Your task to perform on an android device: change the clock style Image 0: 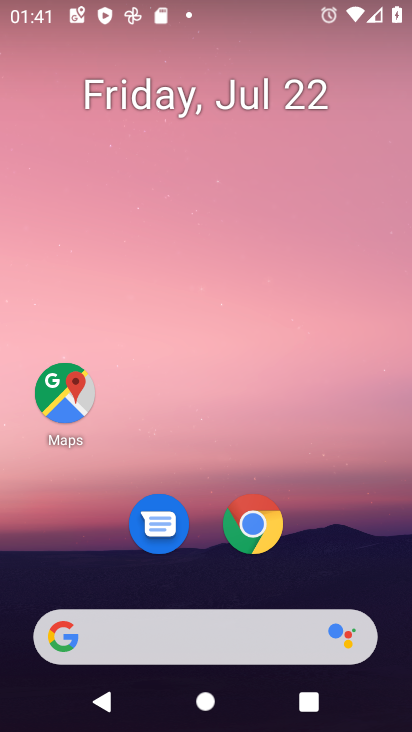
Step 0: drag from (208, 580) to (291, 87)
Your task to perform on an android device: change the clock style Image 1: 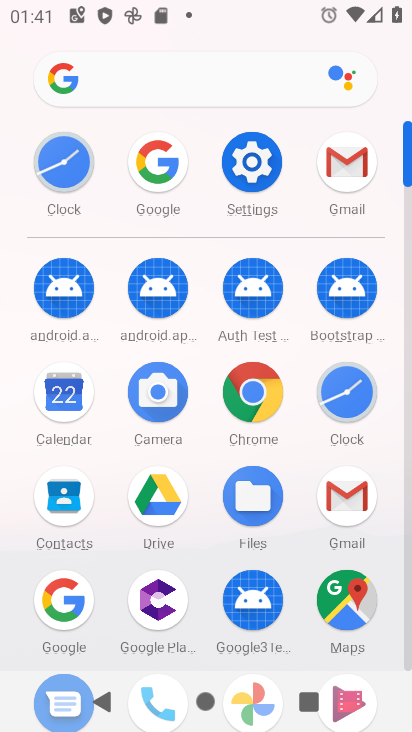
Step 1: click (350, 402)
Your task to perform on an android device: change the clock style Image 2: 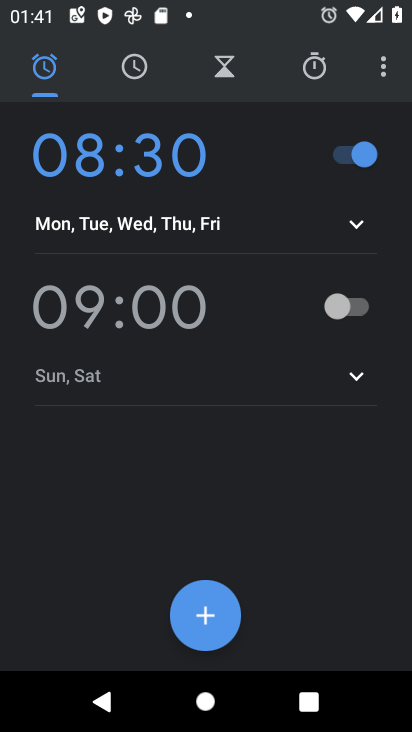
Step 2: click (391, 72)
Your task to perform on an android device: change the clock style Image 3: 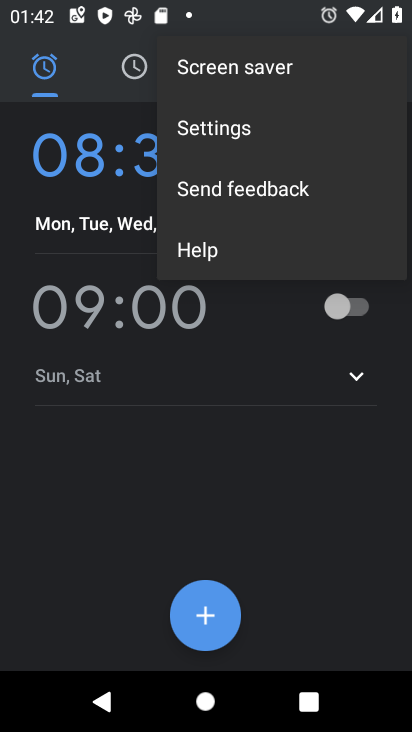
Step 3: click (222, 130)
Your task to perform on an android device: change the clock style Image 4: 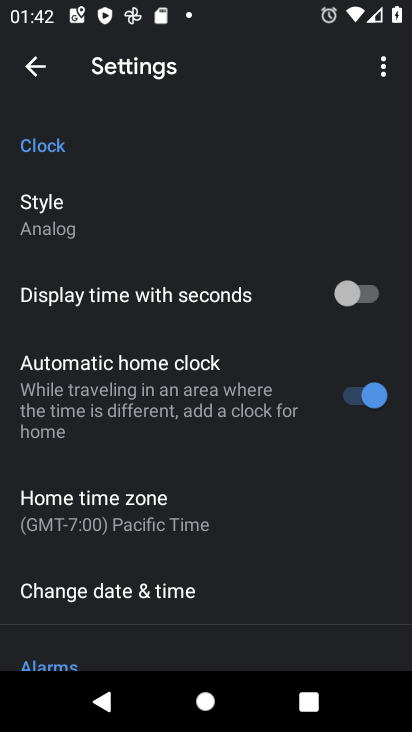
Step 4: click (82, 215)
Your task to perform on an android device: change the clock style Image 5: 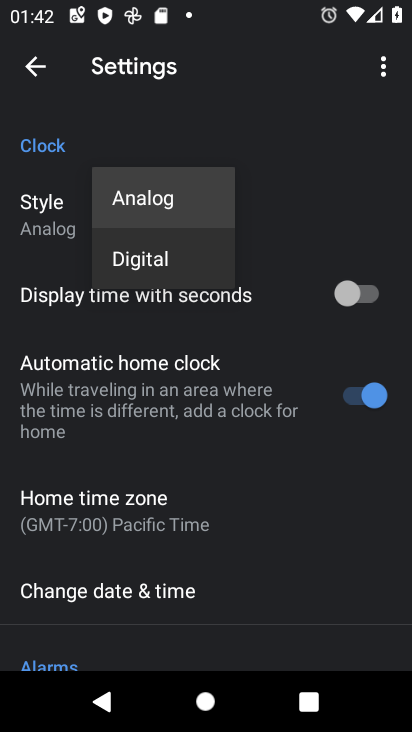
Step 5: click (165, 264)
Your task to perform on an android device: change the clock style Image 6: 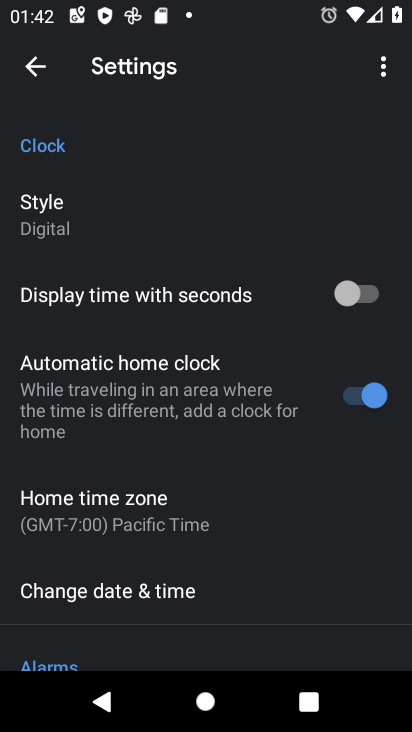
Step 6: task complete